Your task to perform on an android device: Open Youtube and go to the subscriptions tab Image 0: 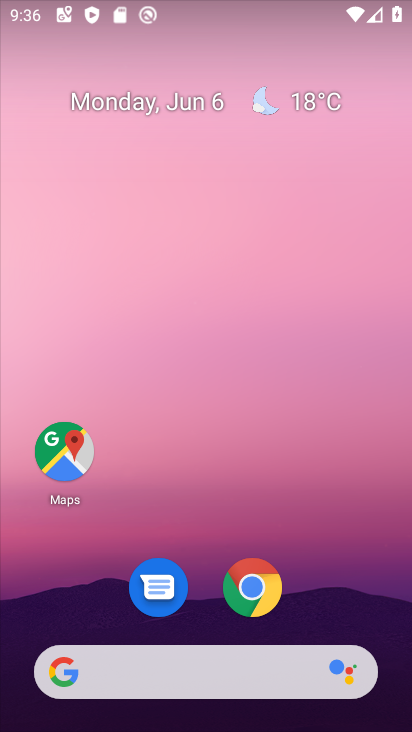
Step 0: drag from (335, 556) to (289, 168)
Your task to perform on an android device: Open Youtube and go to the subscriptions tab Image 1: 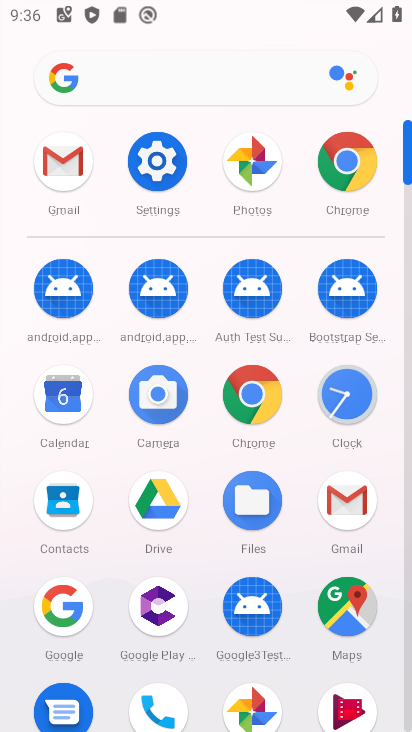
Step 1: drag from (302, 648) to (353, 210)
Your task to perform on an android device: Open Youtube and go to the subscriptions tab Image 2: 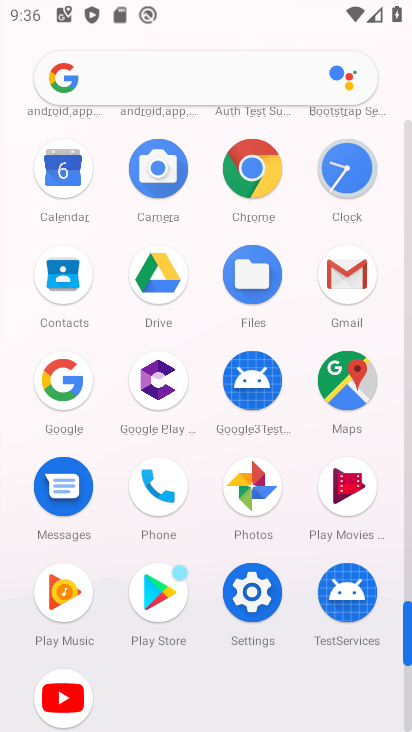
Step 2: click (52, 694)
Your task to perform on an android device: Open Youtube and go to the subscriptions tab Image 3: 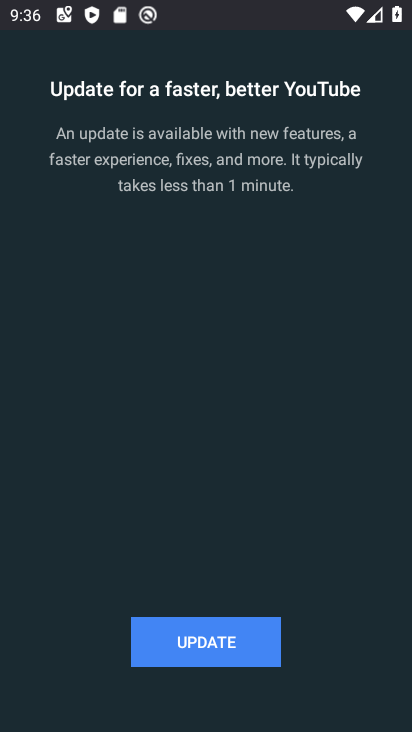
Step 3: click (227, 651)
Your task to perform on an android device: Open Youtube and go to the subscriptions tab Image 4: 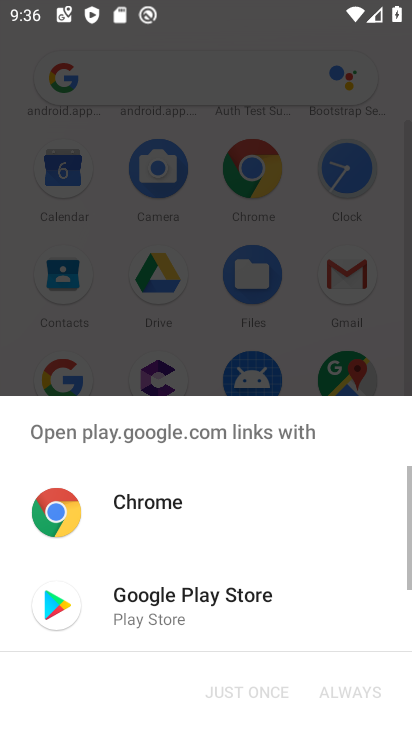
Step 4: click (100, 572)
Your task to perform on an android device: Open Youtube and go to the subscriptions tab Image 5: 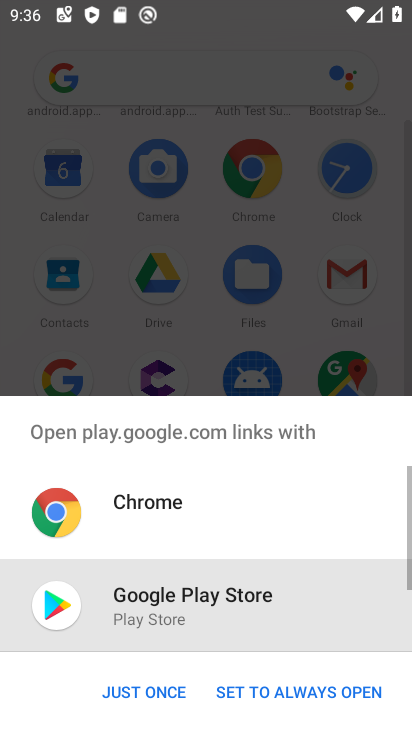
Step 5: click (154, 697)
Your task to perform on an android device: Open Youtube and go to the subscriptions tab Image 6: 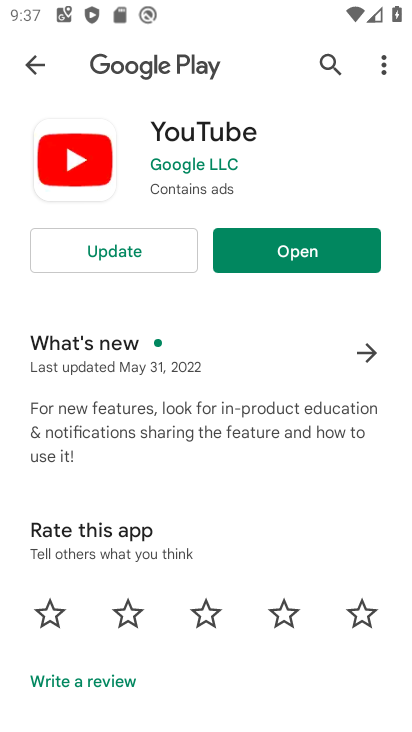
Step 6: click (82, 253)
Your task to perform on an android device: Open Youtube and go to the subscriptions tab Image 7: 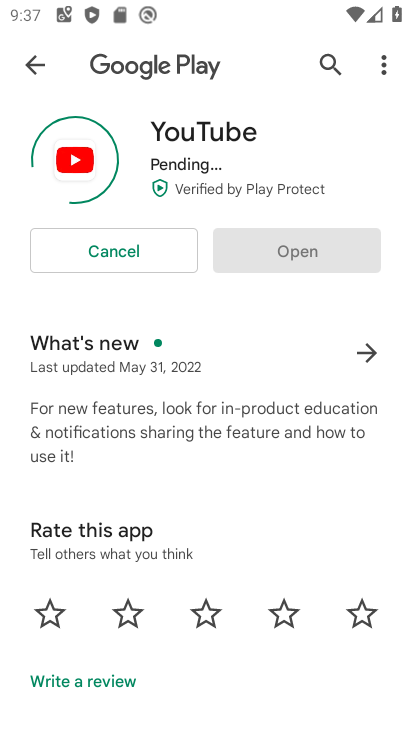
Step 7: task complete